Your task to perform on an android device: Open the map Image 0: 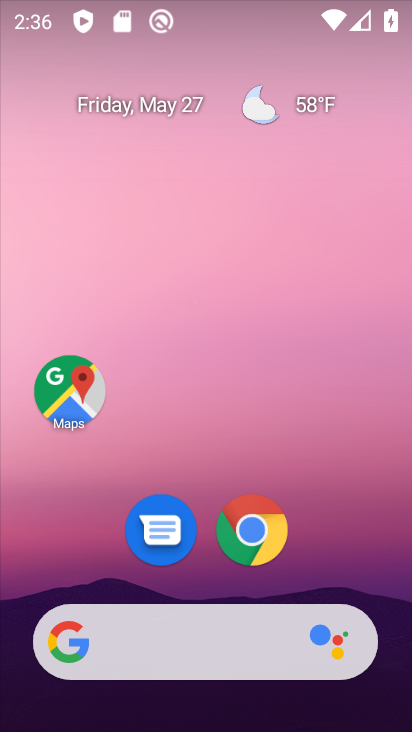
Step 0: click (49, 391)
Your task to perform on an android device: Open the map Image 1: 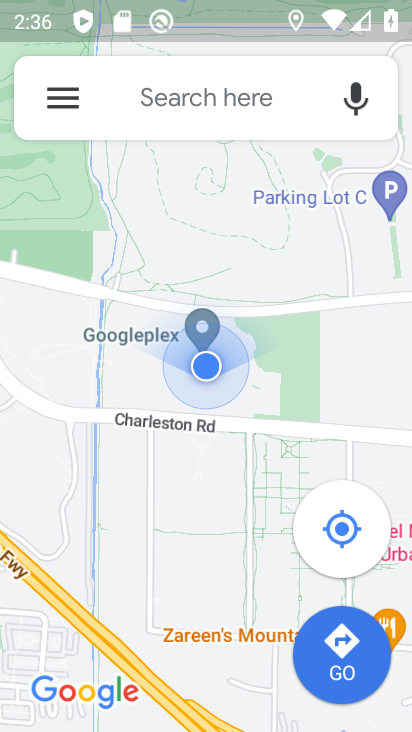
Step 1: task complete